Your task to perform on an android device: stop showing notifications on the lock screen Image 0: 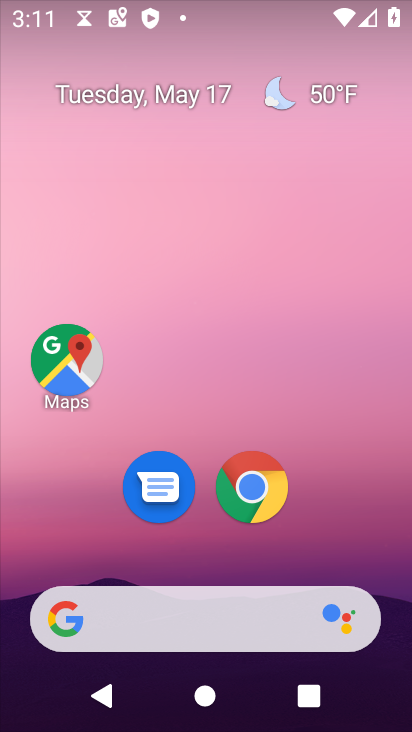
Step 0: drag from (402, 605) to (367, 14)
Your task to perform on an android device: stop showing notifications on the lock screen Image 1: 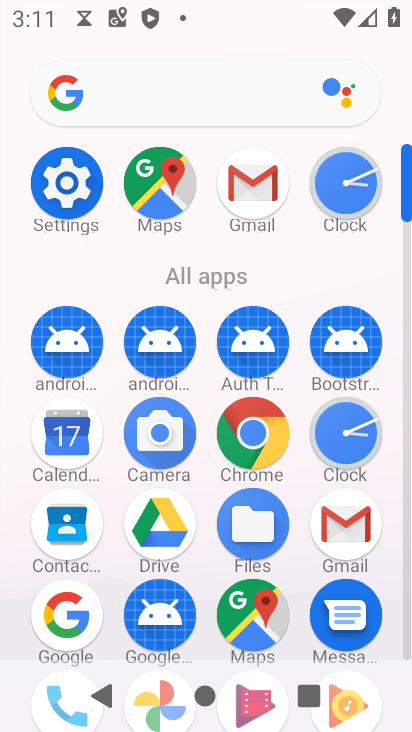
Step 1: click (409, 635)
Your task to perform on an android device: stop showing notifications on the lock screen Image 2: 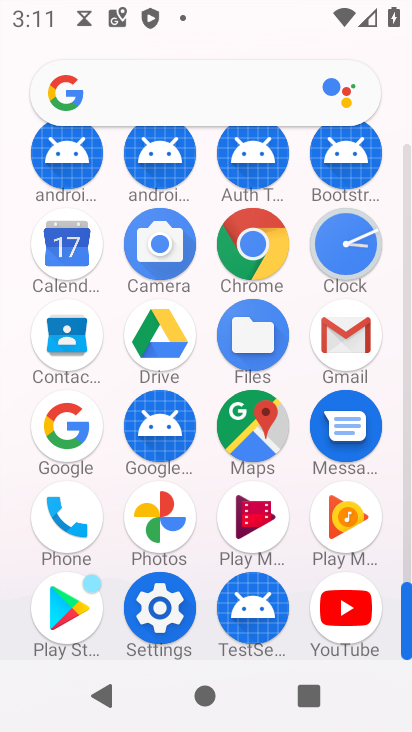
Step 2: click (159, 604)
Your task to perform on an android device: stop showing notifications on the lock screen Image 3: 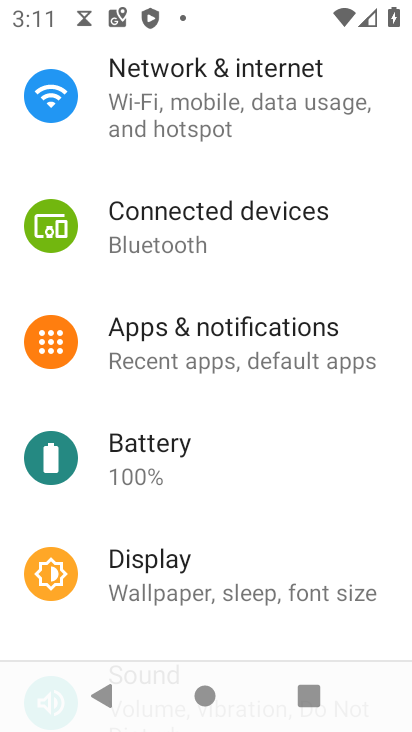
Step 3: click (266, 339)
Your task to perform on an android device: stop showing notifications on the lock screen Image 4: 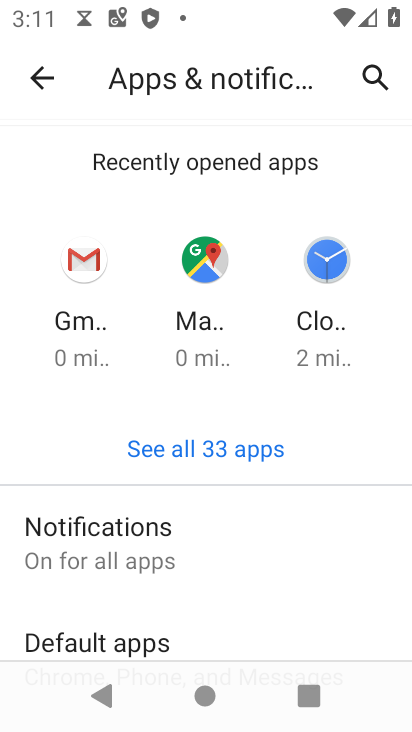
Step 4: click (146, 524)
Your task to perform on an android device: stop showing notifications on the lock screen Image 5: 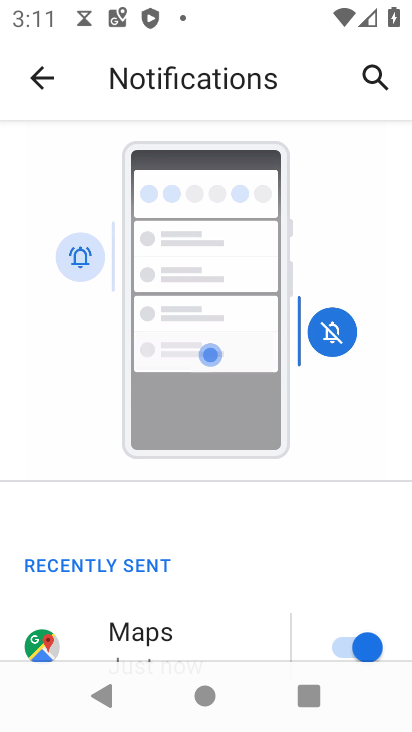
Step 5: drag from (280, 624) to (221, 179)
Your task to perform on an android device: stop showing notifications on the lock screen Image 6: 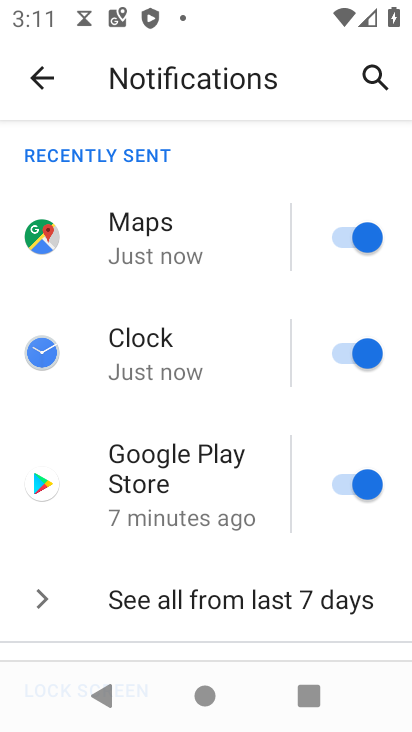
Step 6: drag from (285, 621) to (287, 145)
Your task to perform on an android device: stop showing notifications on the lock screen Image 7: 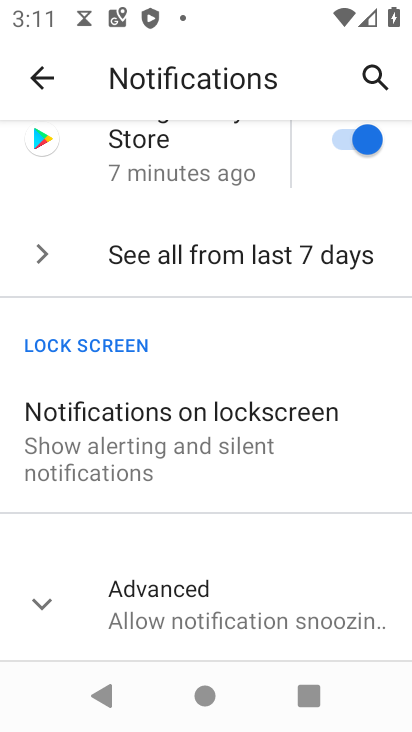
Step 7: click (90, 420)
Your task to perform on an android device: stop showing notifications on the lock screen Image 8: 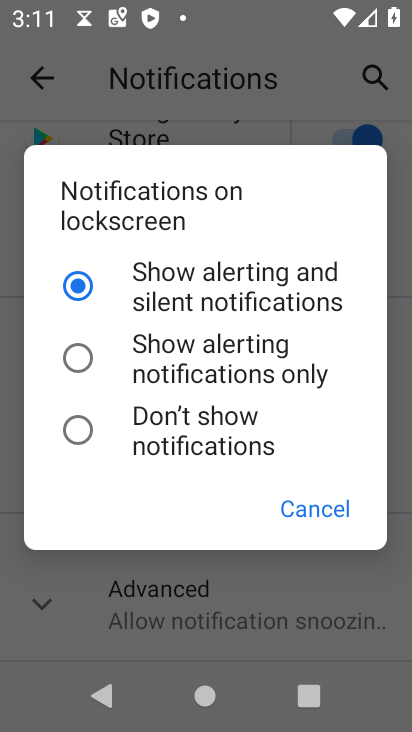
Step 8: click (78, 429)
Your task to perform on an android device: stop showing notifications on the lock screen Image 9: 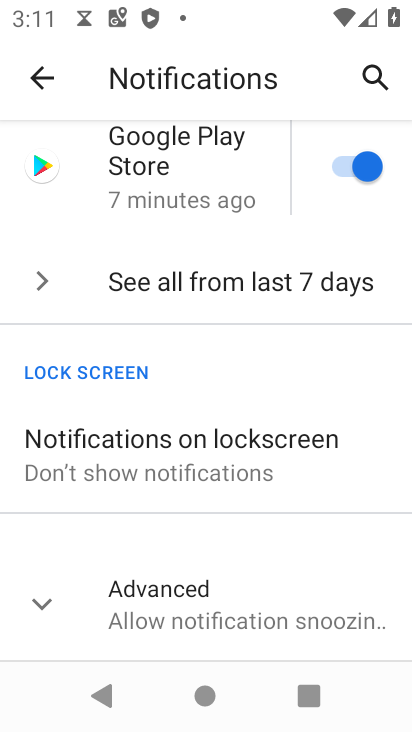
Step 9: task complete